Your task to perform on an android device: Check the weather Image 0: 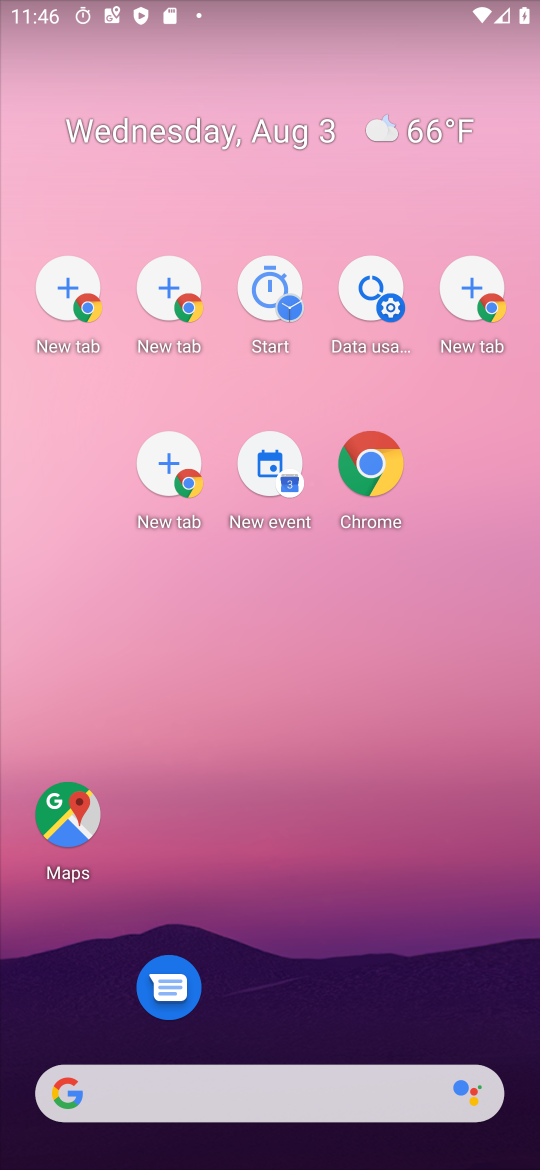
Step 0: drag from (316, 843) to (314, 92)
Your task to perform on an android device: Check the weather Image 1: 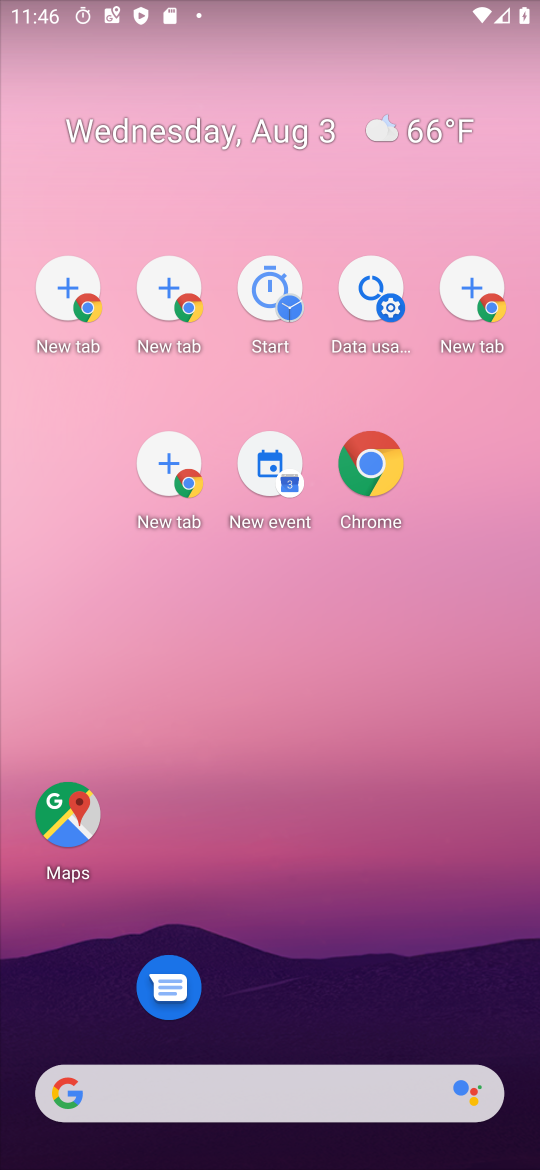
Step 1: drag from (252, 350) to (259, 152)
Your task to perform on an android device: Check the weather Image 2: 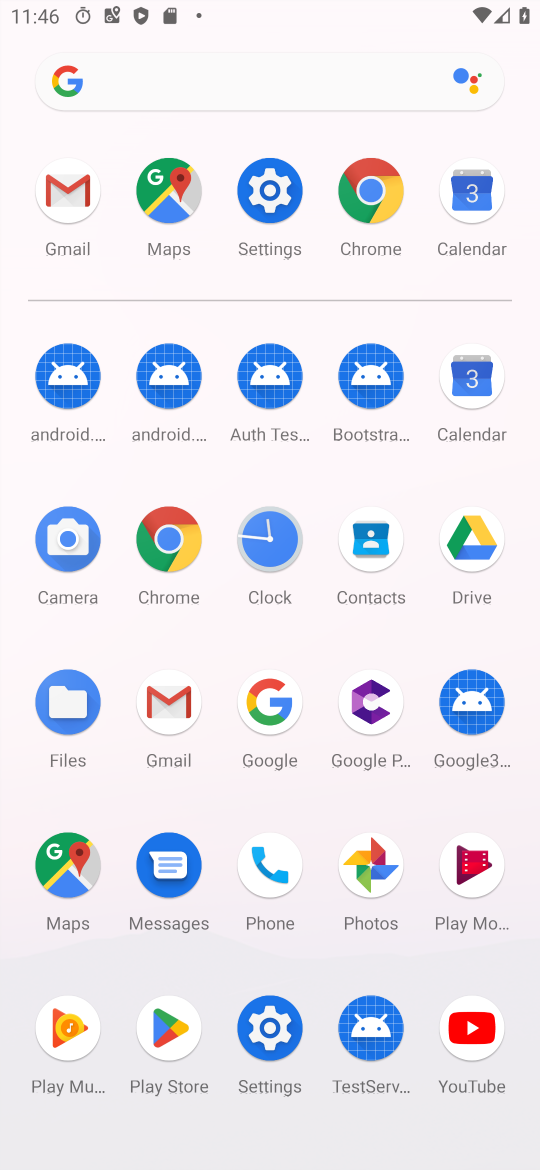
Step 2: click (369, 196)
Your task to perform on an android device: Check the weather Image 3: 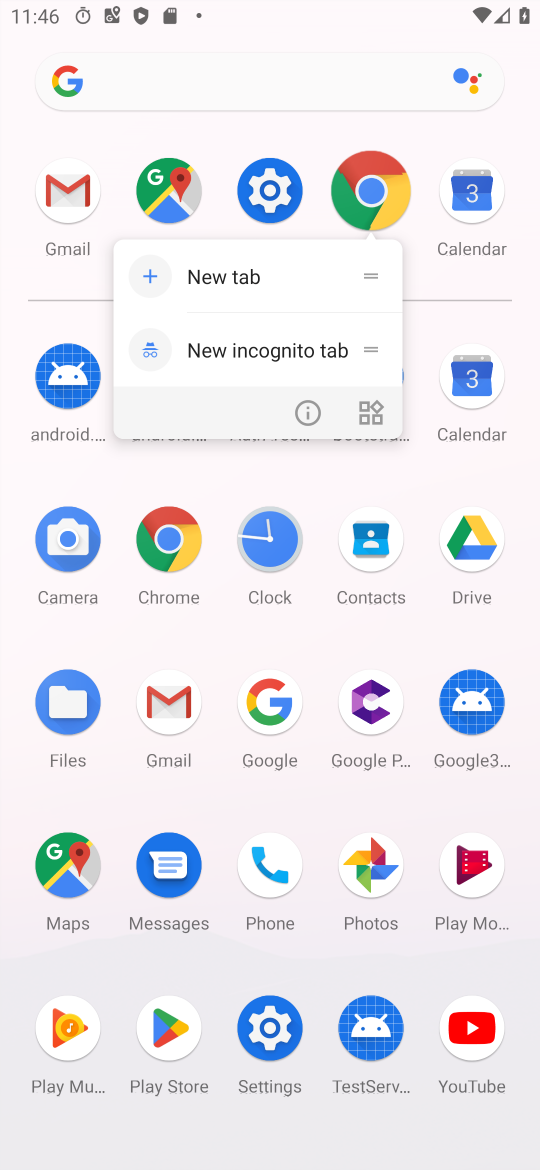
Step 3: click (370, 197)
Your task to perform on an android device: Check the weather Image 4: 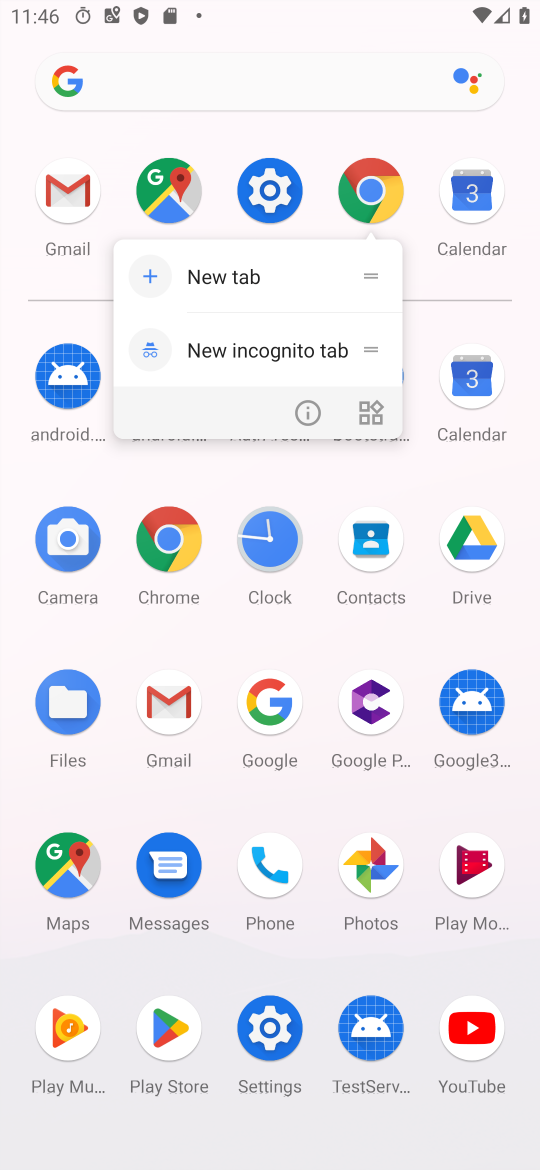
Step 4: click (262, 277)
Your task to perform on an android device: Check the weather Image 5: 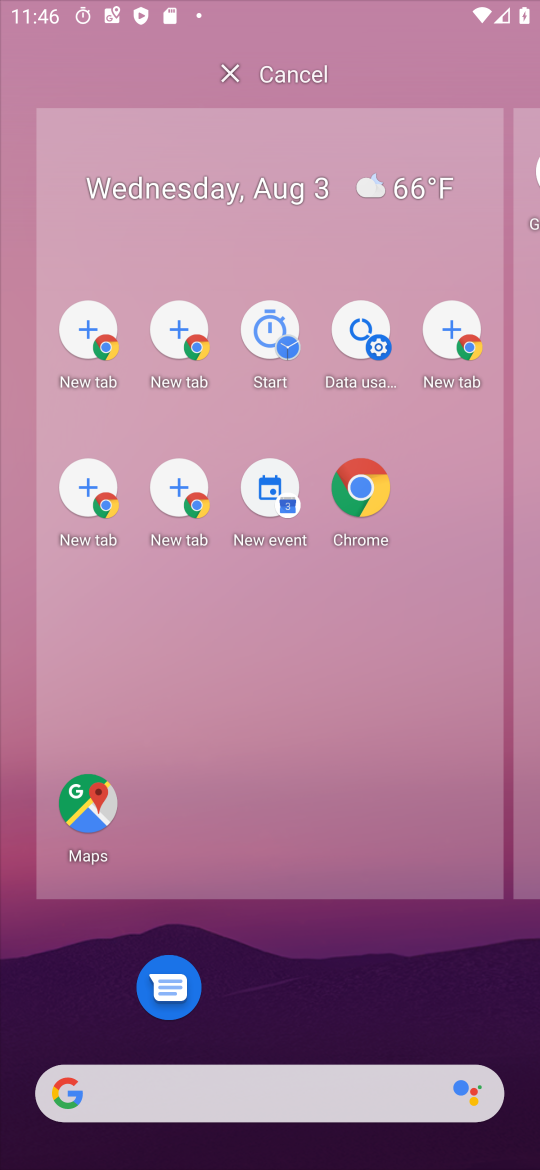
Step 5: click (378, 192)
Your task to perform on an android device: Check the weather Image 6: 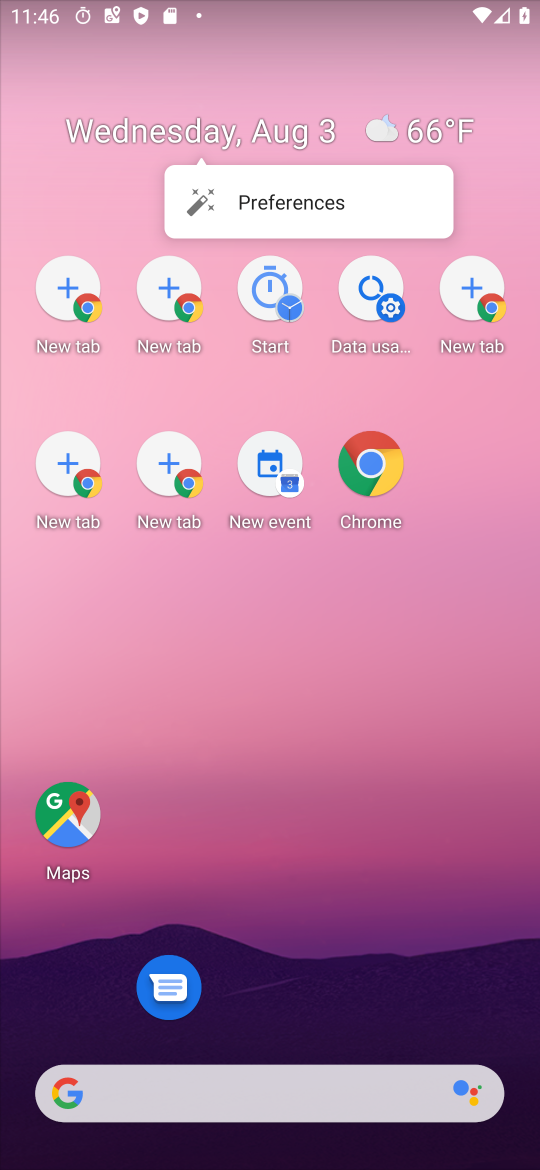
Step 6: click (398, 102)
Your task to perform on an android device: Check the weather Image 7: 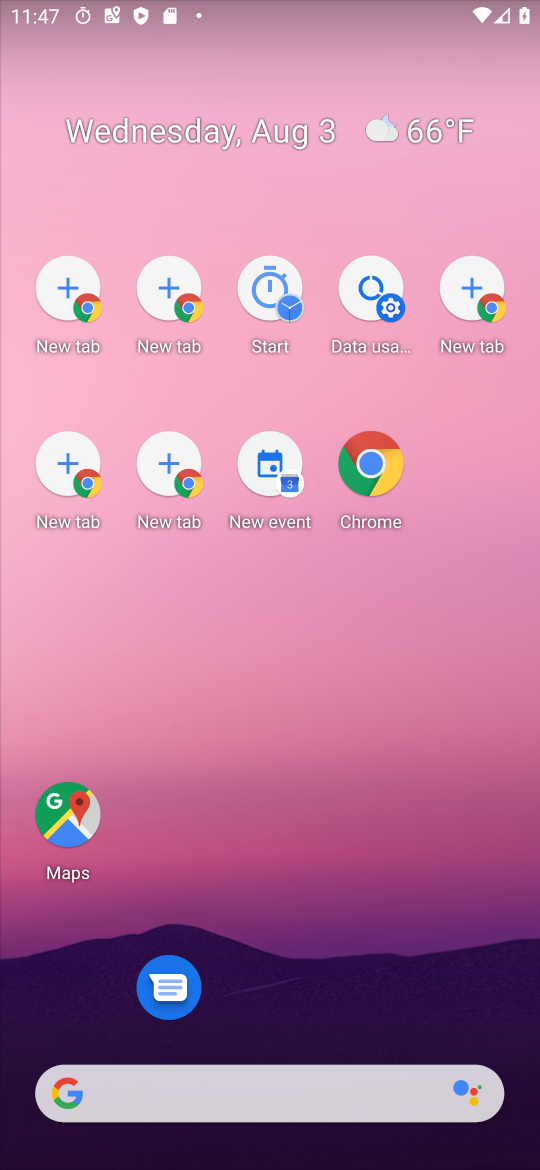
Step 7: drag from (337, 174) to (326, 4)
Your task to perform on an android device: Check the weather Image 8: 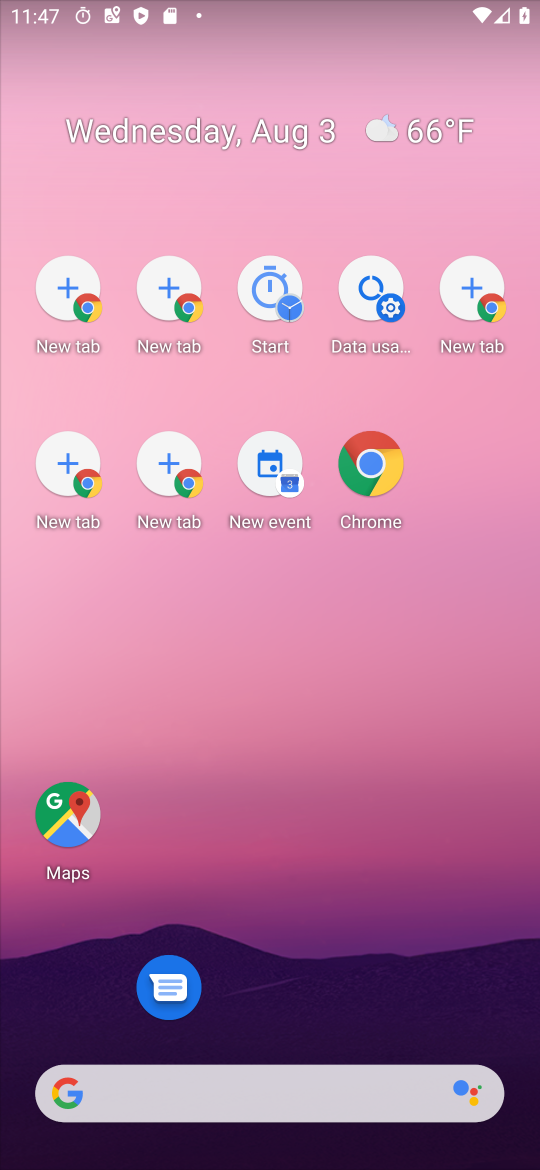
Step 8: drag from (312, 603) to (276, 61)
Your task to perform on an android device: Check the weather Image 9: 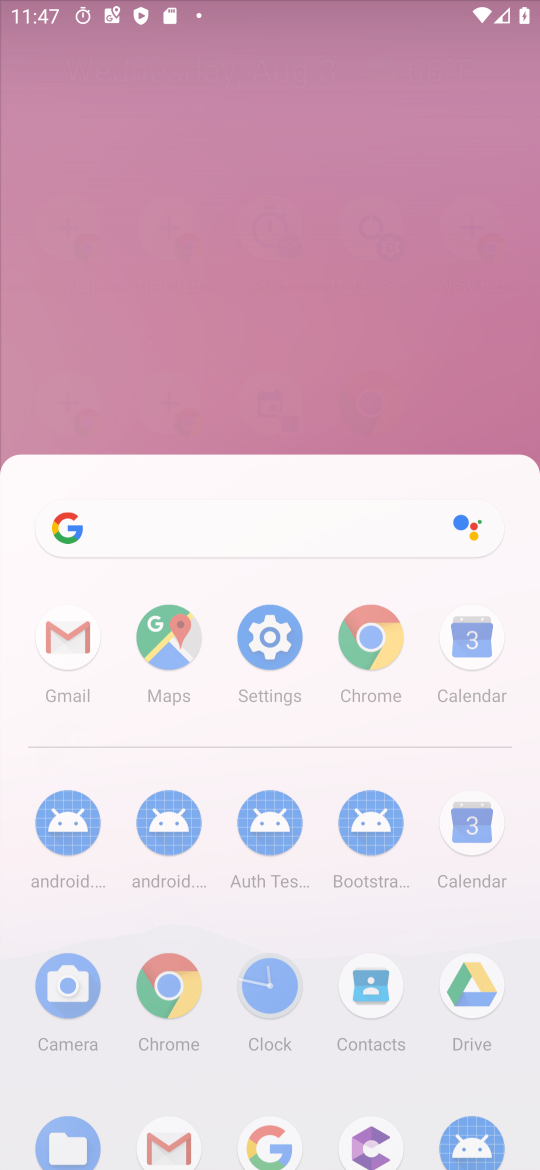
Step 9: drag from (312, 508) to (293, 33)
Your task to perform on an android device: Check the weather Image 10: 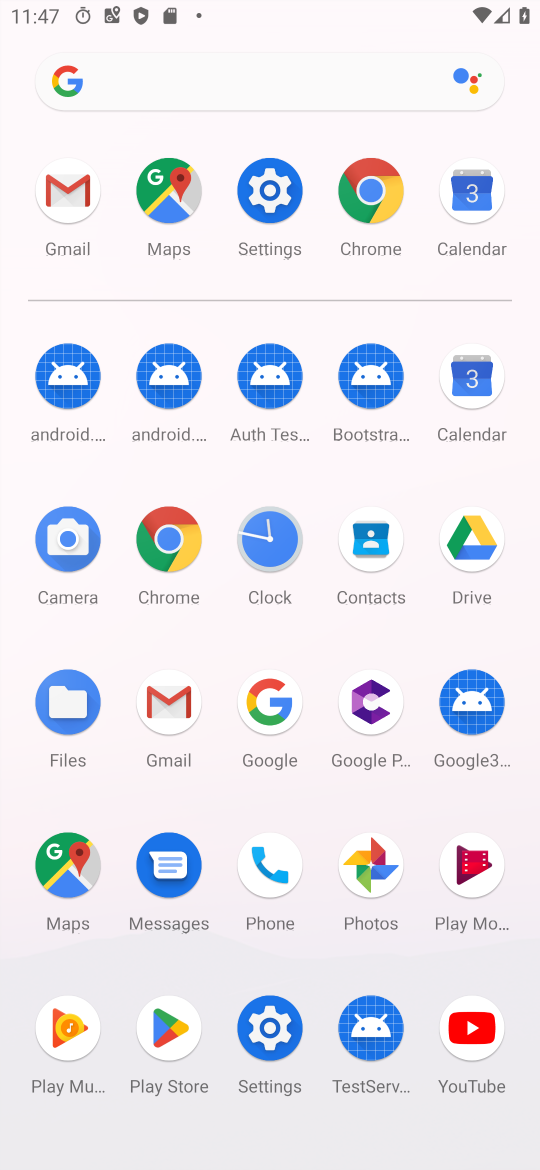
Step 10: click (367, 194)
Your task to perform on an android device: Check the weather Image 11: 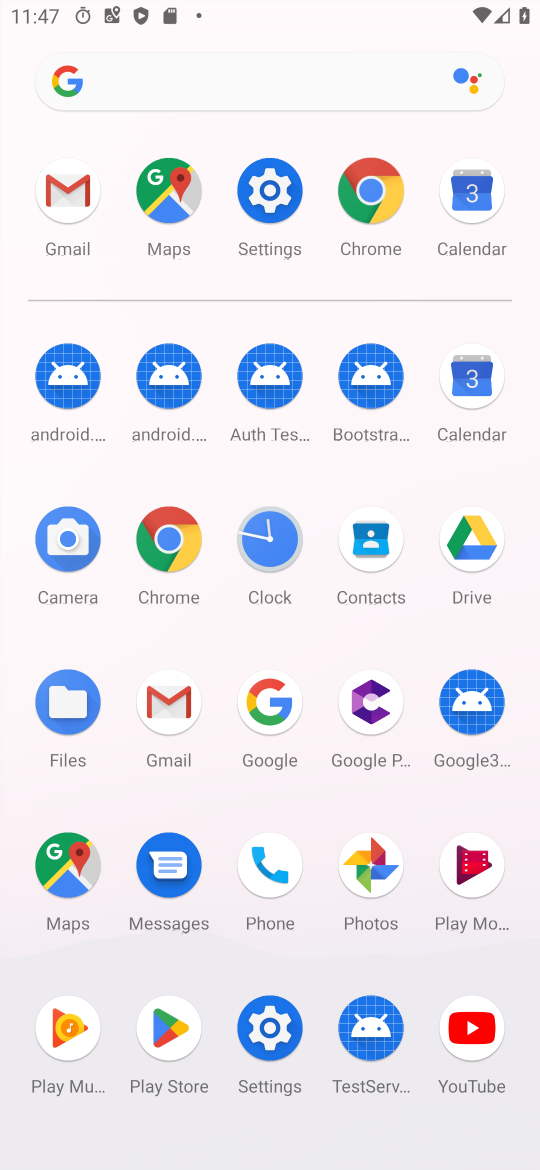
Step 11: click (366, 192)
Your task to perform on an android device: Check the weather Image 12: 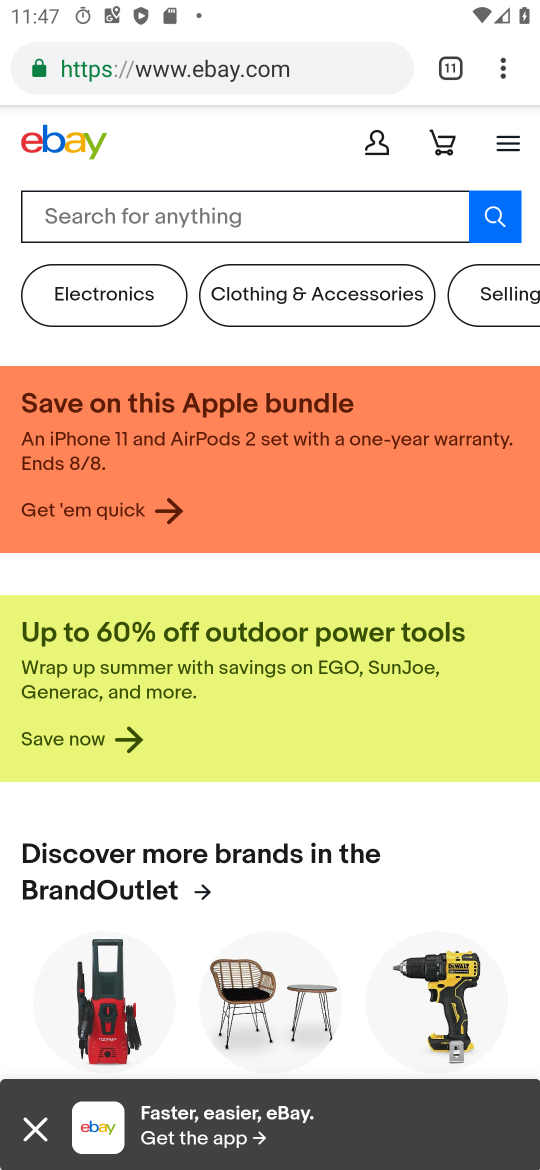
Step 12: click (157, 74)
Your task to perform on an android device: Check the weather Image 13: 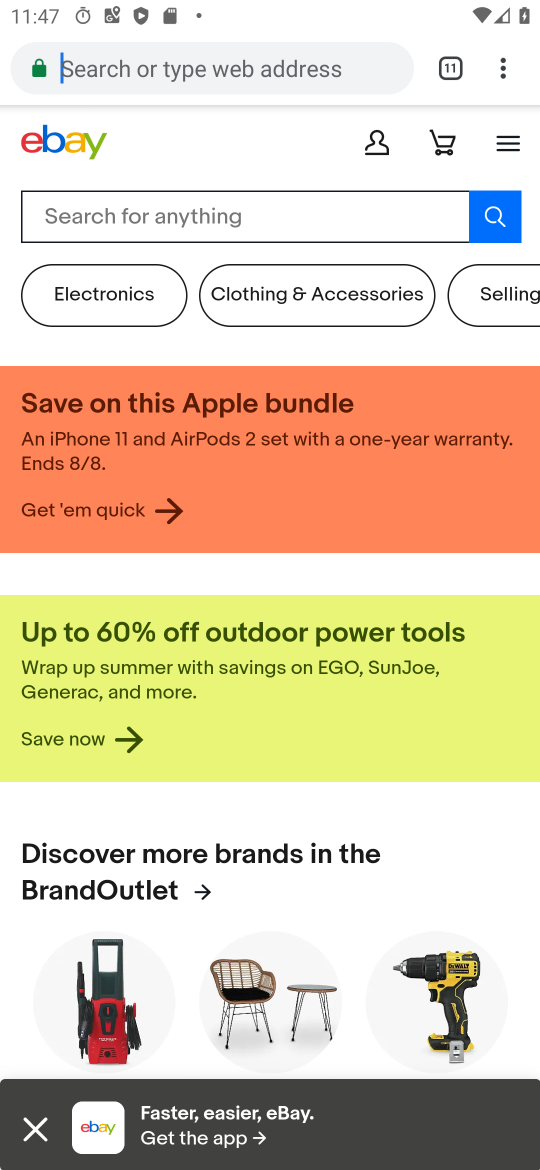
Step 13: drag from (491, 62) to (102, 82)
Your task to perform on an android device: Check the weather Image 14: 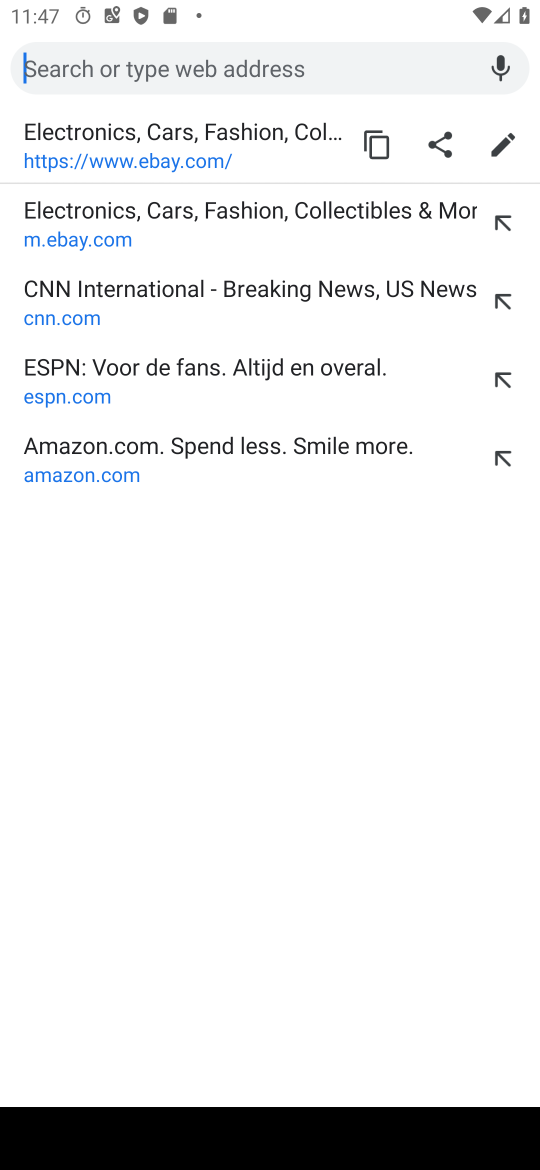
Step 14: type "weather"
Your task to perform on an android device: Check the weather Image 15: 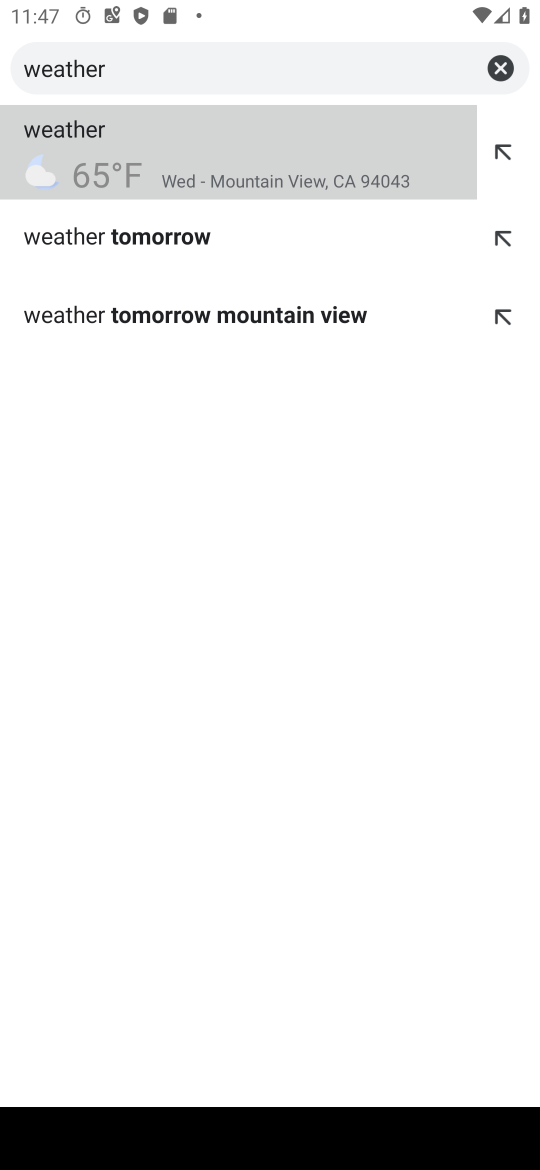
Step 15: click (224, 147)
Your task to perform on an android device: Check the weather Image 16: 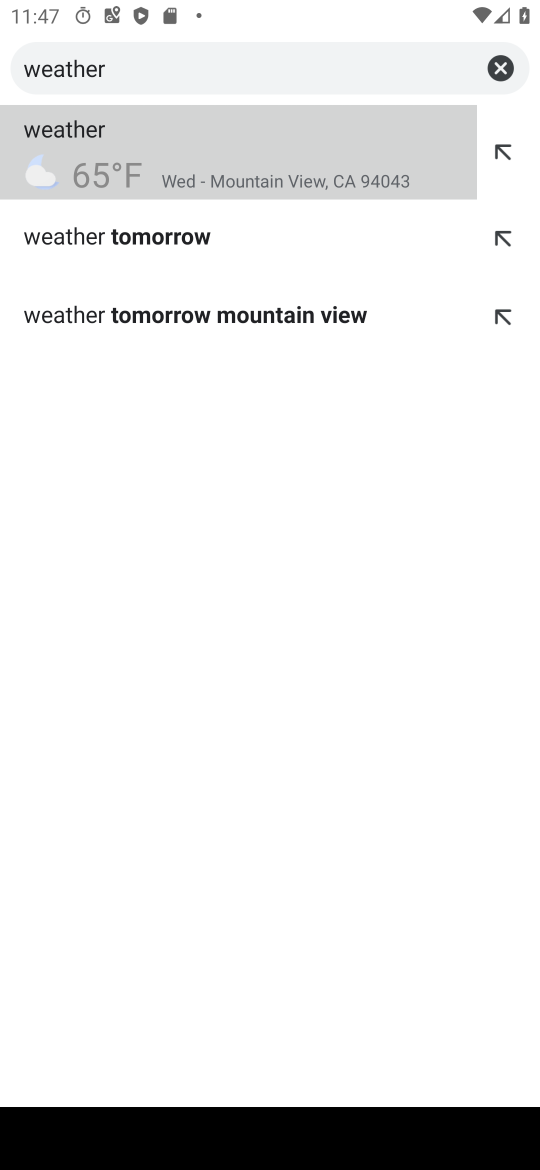
Step 16: click (239, 162)
Your task to perform on an android device: Check the weather Image 17: 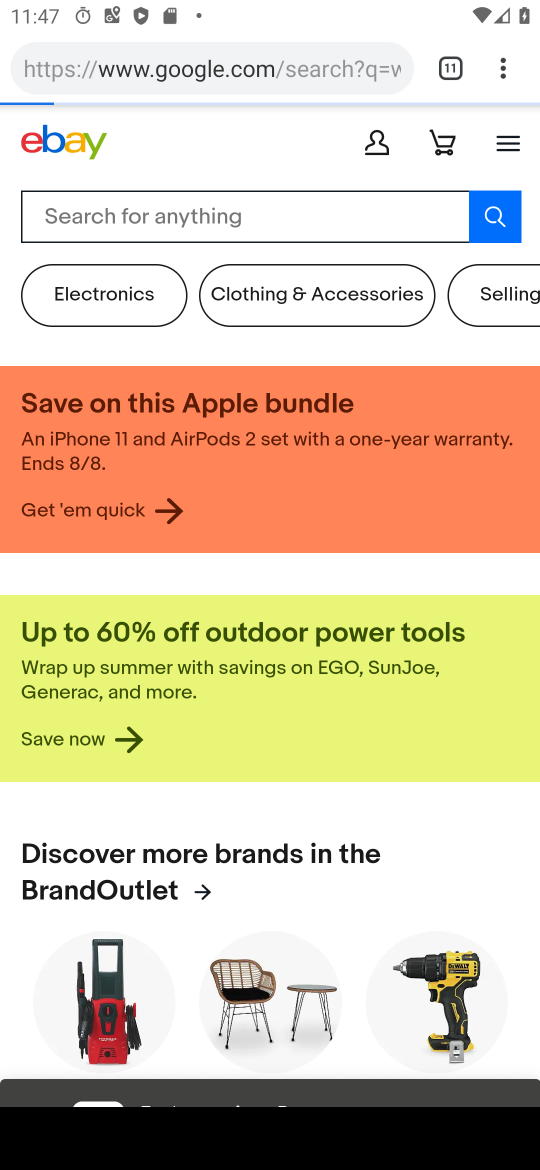
Step 17: click (263, 159)
Your task to perform on an android device: Check the weather Image 18: 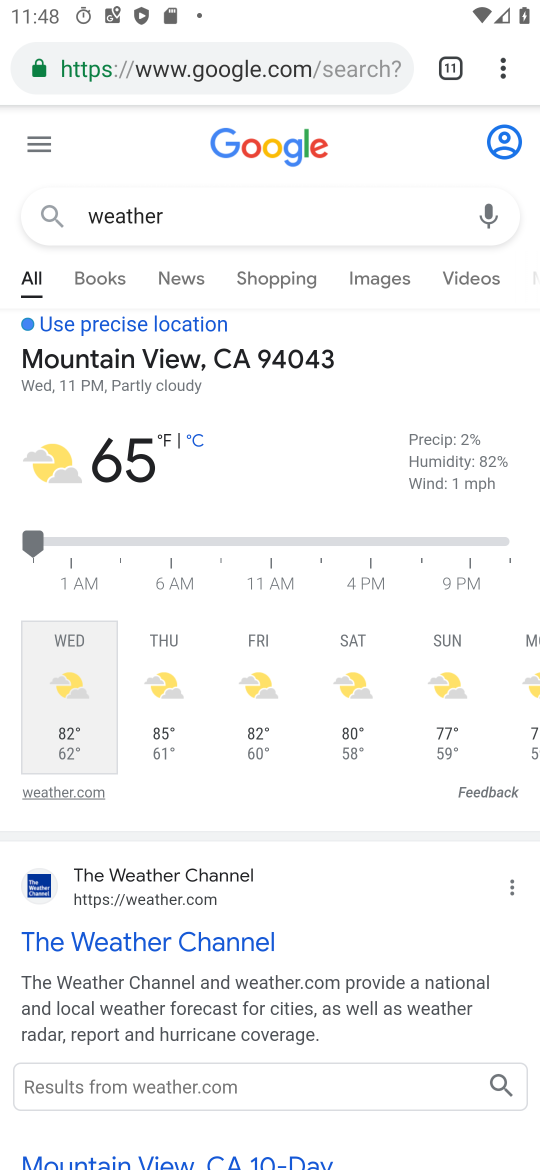
Step 18: task complete